Your task to perform on an android device: What is the news today? Image 0: 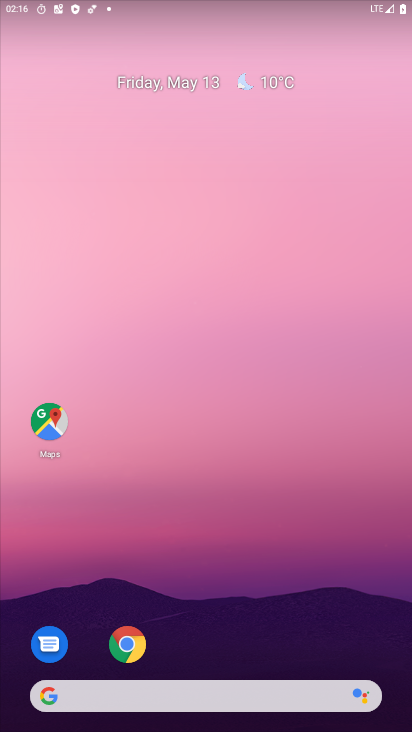
Step 0: drag from (250, 670) to (254, 2)
Your task to perform on an android device: What is the news today? Image 1: 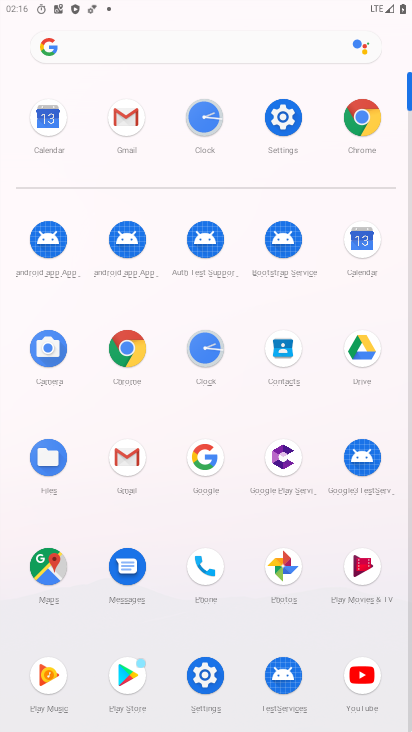
Step 1: click (134, 355)
Your task to perform on an android device: What is the news today? Image 2: 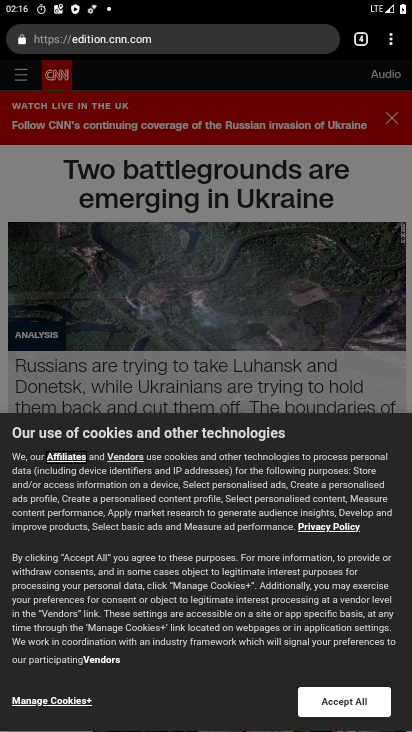
Step 2: click (190, 43)
Your task to perform on an android device: What is the news today? Image 3: 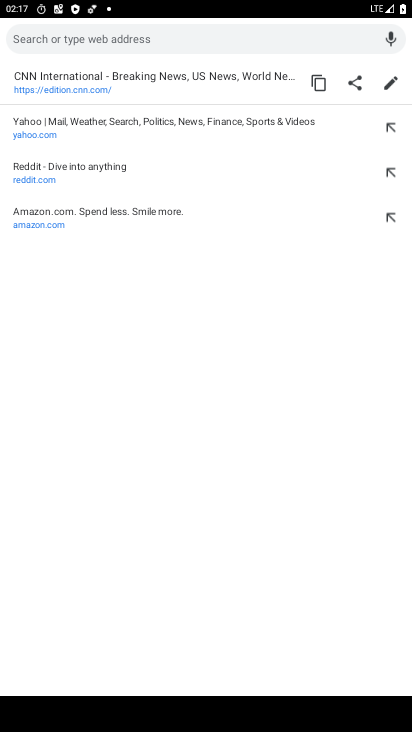
Step 3: type "news today"
Your task to perform on an android device: What is the news today? Image 4: 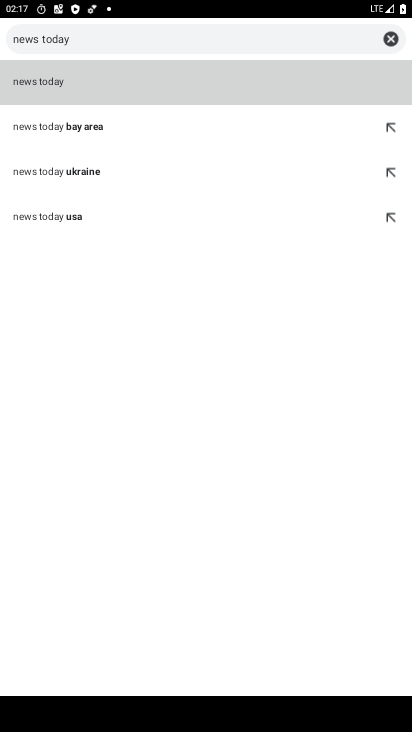
Step 4: click (227, 91)
Your task to perform on an android device: What is the news today? Image 5: 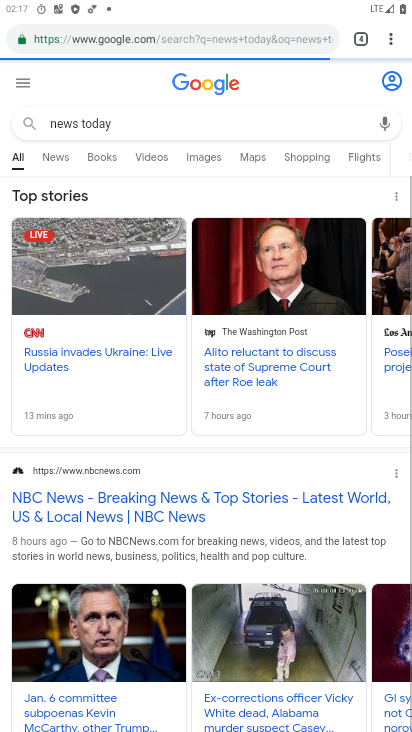
Step 5: task complete